Your task to perform on an android device: What's the weather? Image 0: 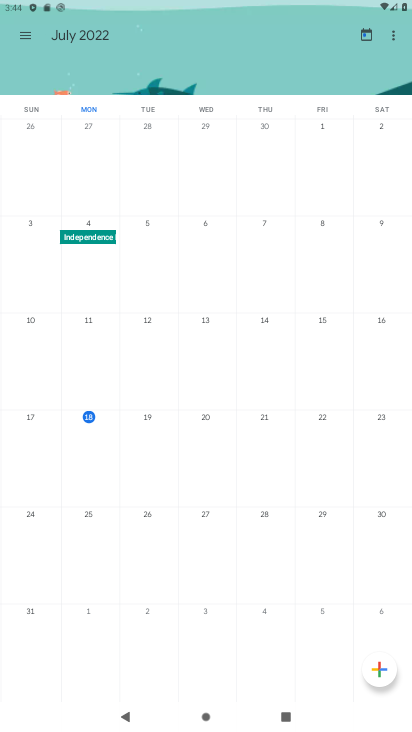
Step 0: press home button
Your task to perform on an android device: What's the weather? Image 1: 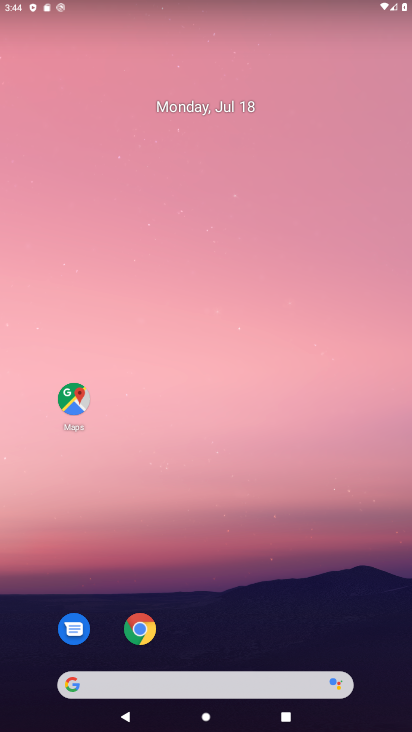
Step 1: click (213, 685)
Your task to perform on an android device: What's the weather? Image 2: 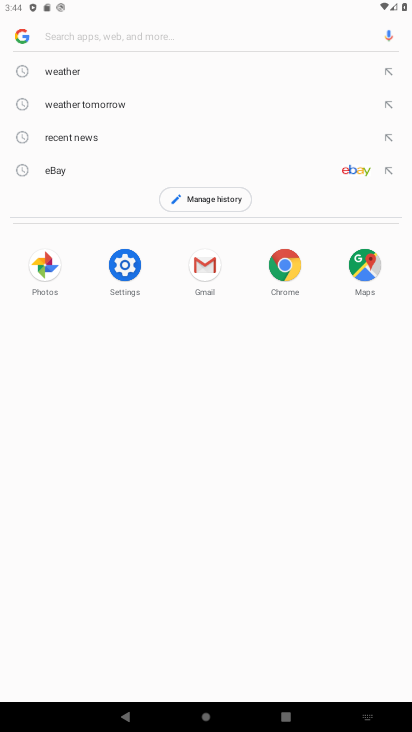
Step 2: click (99, 73)
Your task to perform on an android device: What's the weather? Image 3: 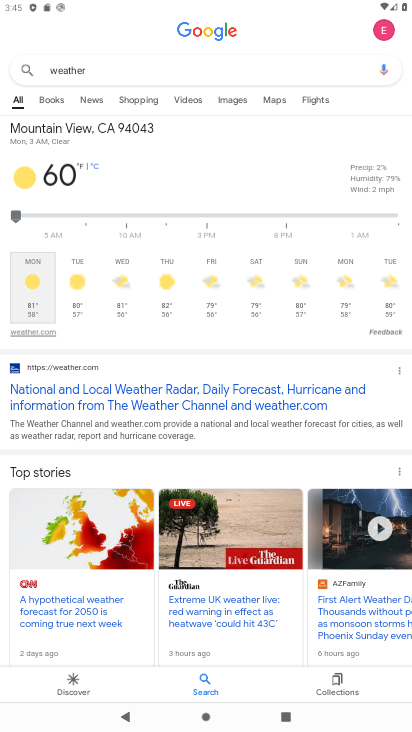
Step 3: task complete